Your task to perform on an android device: turn on notifications settings in the gmail app Image 0: 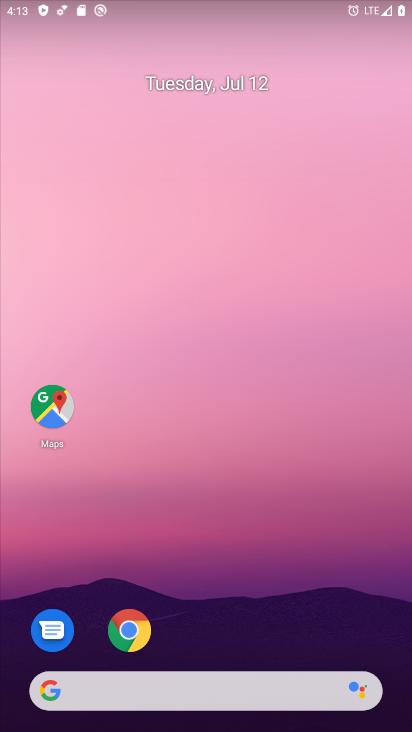
Step 0: click (160, 94)
Your task to perform on an android device: turn on notifications settings in the gmail app Image 1: 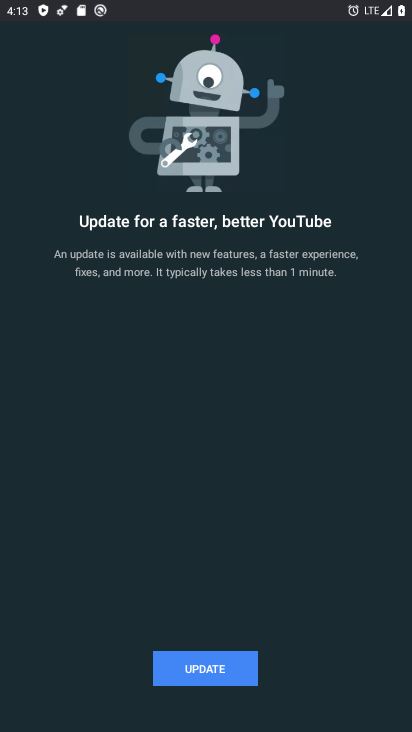
Step 1: drag from (213, 682) to (146, 295)
Your task to perform on an android device: turn on notifications settings in the gmail app Image 2: 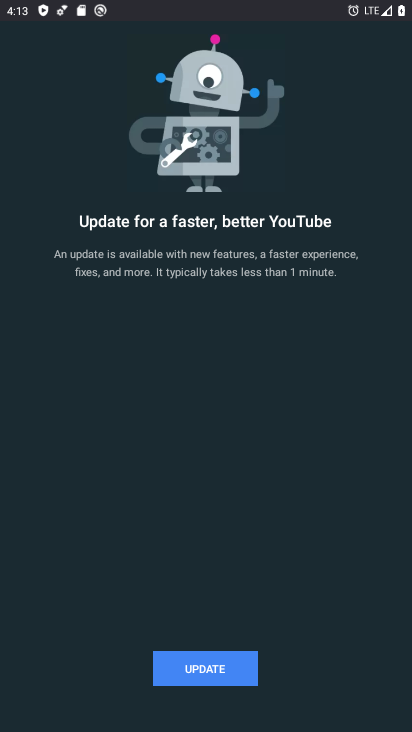
Step 2: press back button
Your task to perform on an android device: turn on notifications settings in the gmail app Image 3: 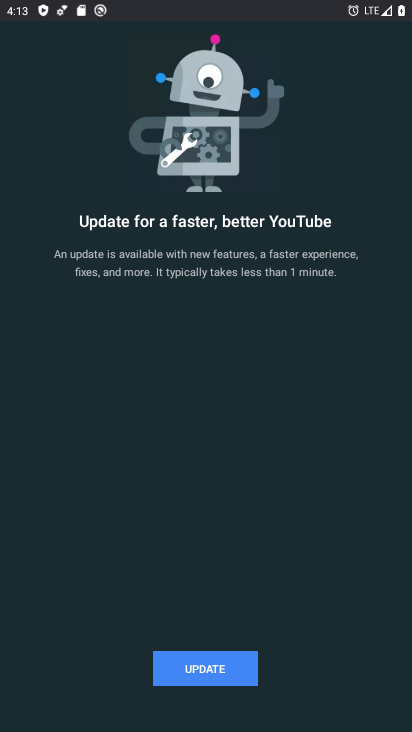
Step 3: press back button
Your task to perform on an android device: turn on notifications settings in the gmail app Image 4: 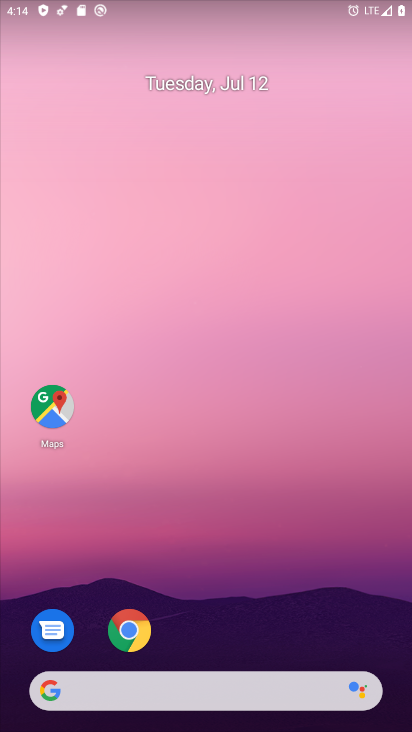
Step 4: drag from (255, 704) to (210, 30)
Your task to perform on an android device: turn on notifications settings in the gmail app Image 5: 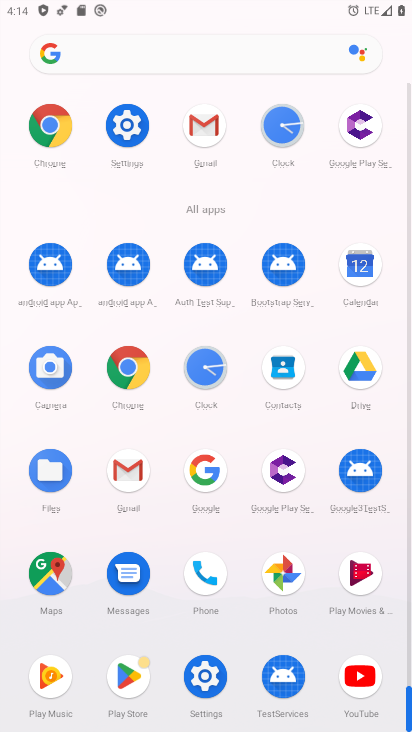
Step 5: click (135, 466)
Your task to perform on an android device: turn on notifications settings in the gmail app Image 6: 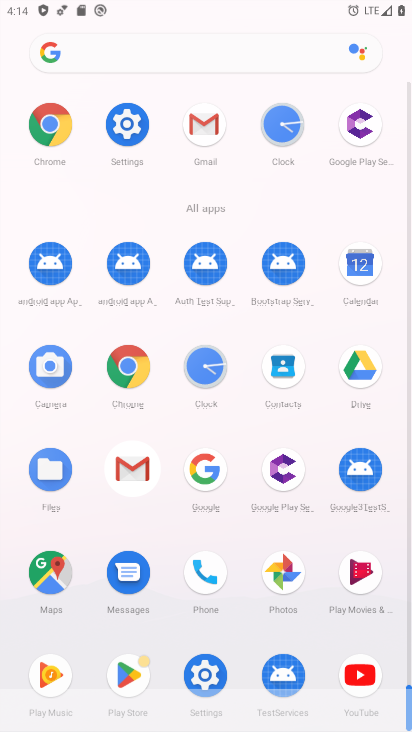
Step 6: click (133, 468)
Your task to perform on an android device: turn on notifications settings in the gmail app Image 7: 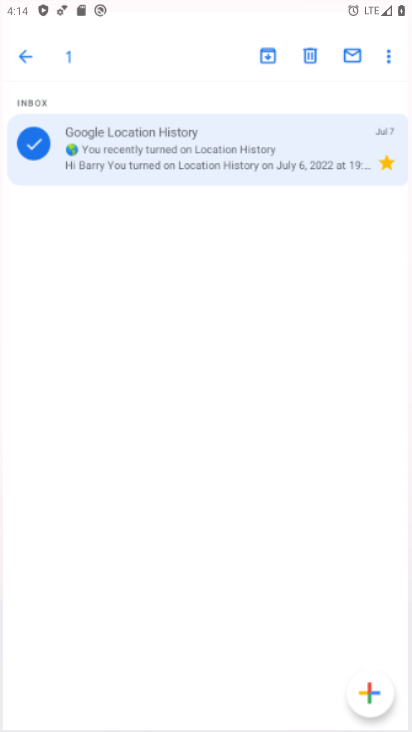
Step 7: click (133, 468)
Your task to perform on an android device: turn on notifications settings in the gmail app Image 8: 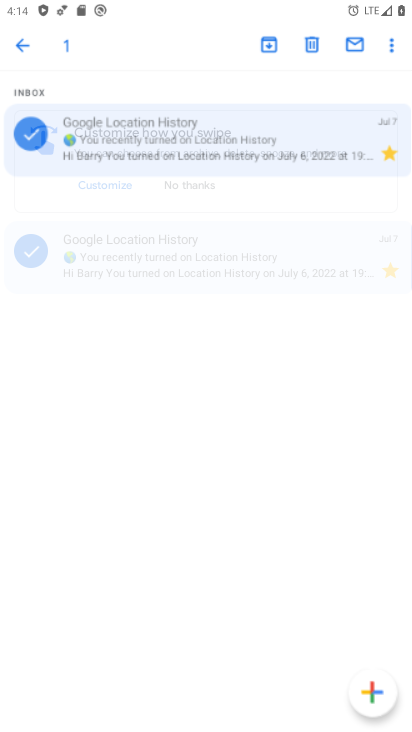
Step 8: click (132, 468)
Your task to perform on an android device: turn on notifications settings in the gmail app Image 9: 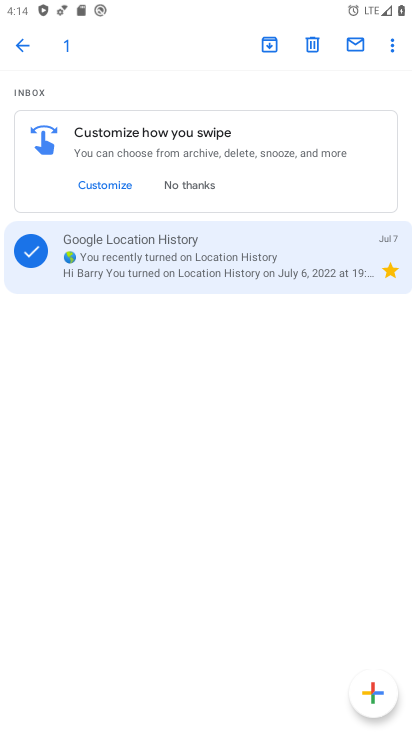
Step 9: click (20, 35)
Your task to perform on an android device: turn on notifications settings in the gmail app Image 10: 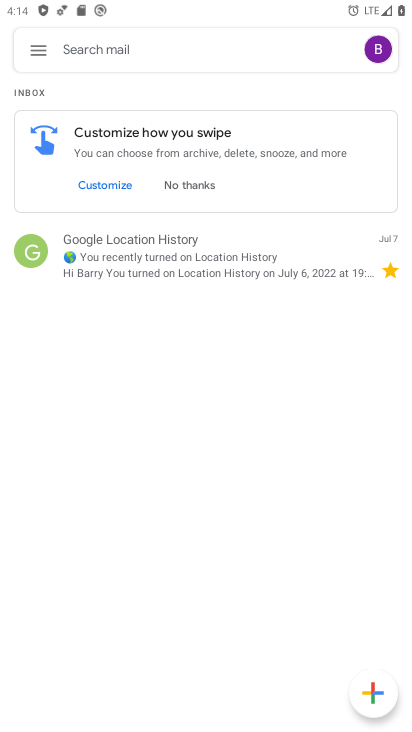
Step 10: click (32, 47)
Your task to perform on an android device: turn on notifications settings in the gmail app Image 11: 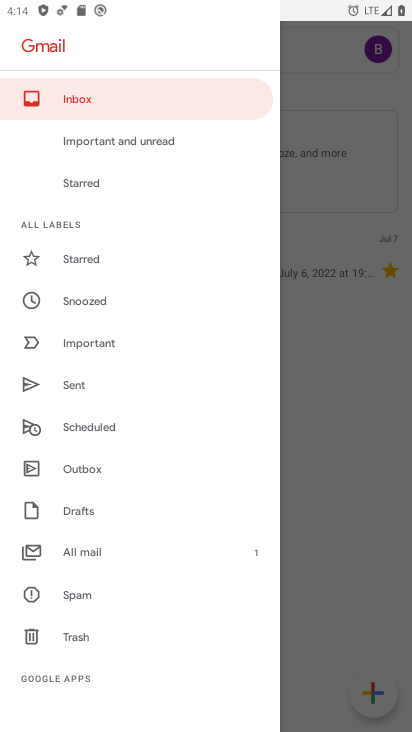
Step 11: drag from (92, 565) to (46, 156)
Your task to perform on an android device: turn on notifications settings in the gmail app Image 12: 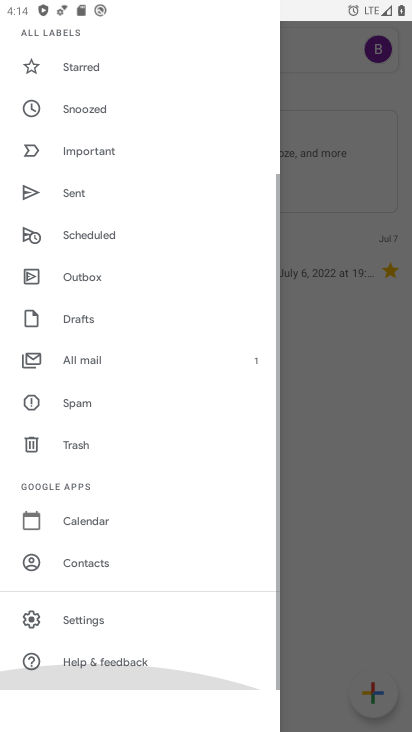
Step 12: drag from (114, 434) to (134, 261)
Your task to perform on an android device: turn on notifications settings in the gmail app Image 13: 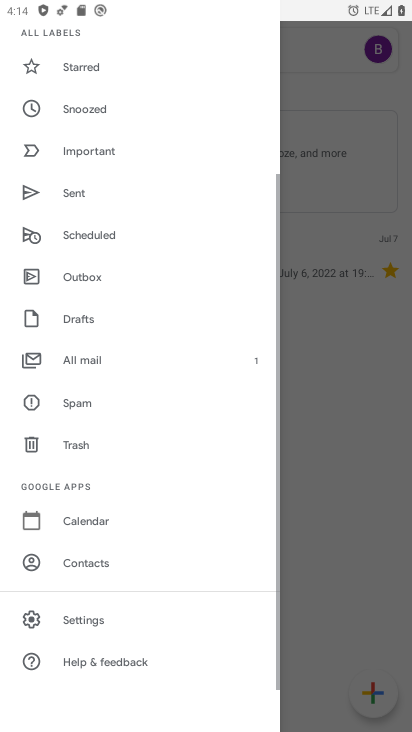
Step 13: click (81, 619)
Your task to perform on an android device: turn on notifications settings in the gmail app Image 14: 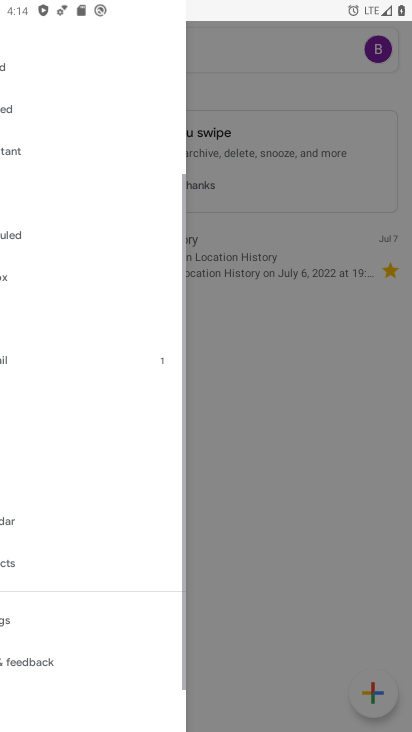
Step 14: click (81, 619)
Your task to perform on an android device: turn on notifications settings in the gmail app Image 15: 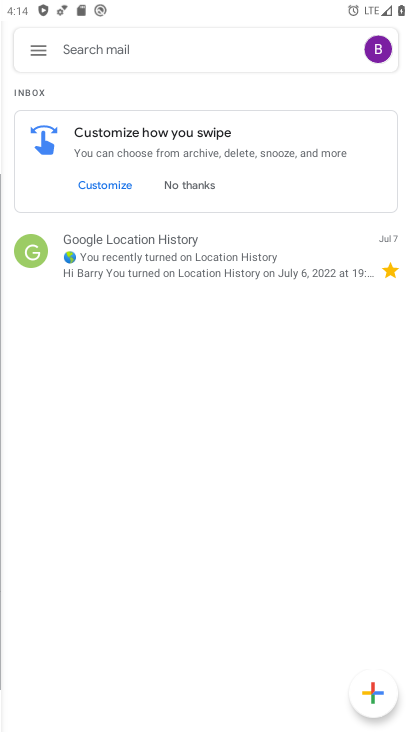
Step 15: click (86, 619)
Your task to perform on an android device: turn on notifications settings in the gmail app Image 16: 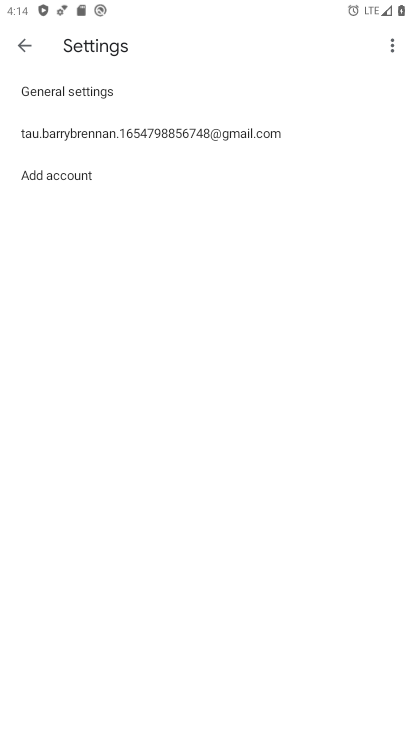
Step 16: click (92, 135)
Your task to perform on an android device: turn on notifications settings in the gmail app Image 17: 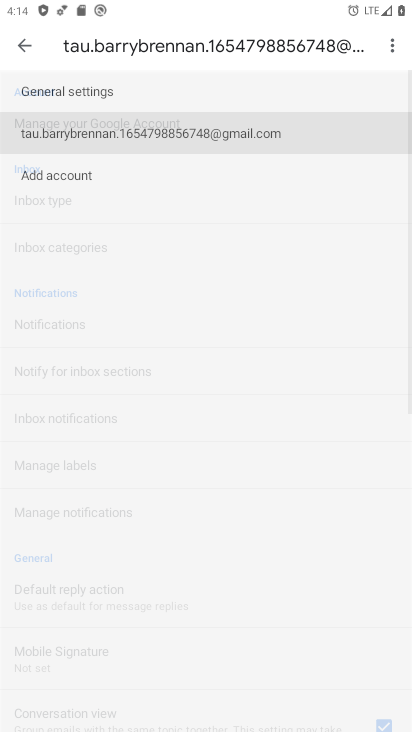
Step 17: click (106, 141)
Your task to perform on an android device: turn on notifications settings in the gmail app Image 18: 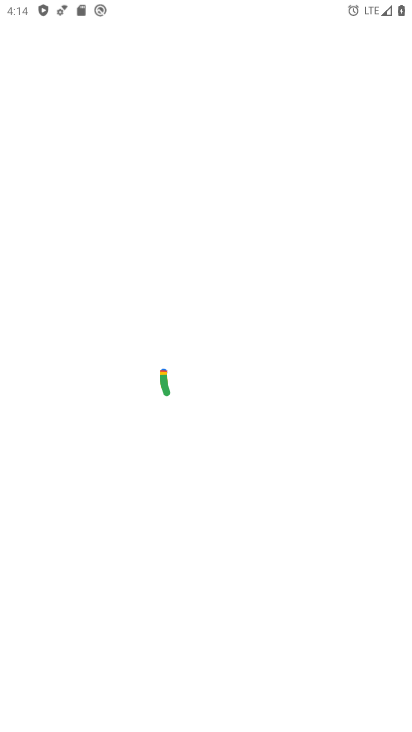
Step 18: press back button
Your task to perform on an android device: turn on notifications settings in the gmail app Image 19: 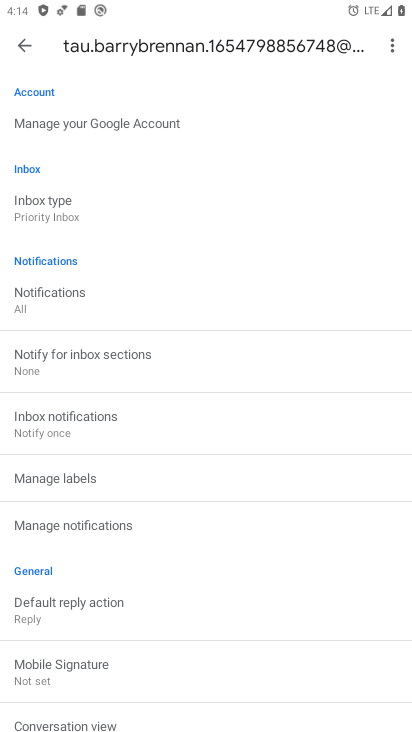
Step 19: click (42, 296)
Your task to perform on an android device: turn on notifications settings in the gmail app Image 20: 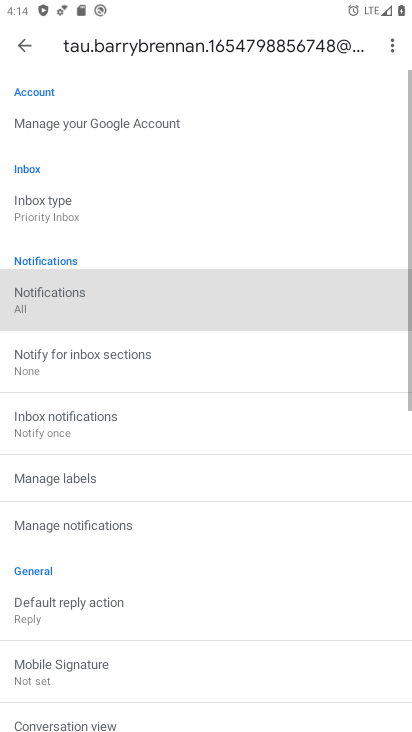
Step 20: click (43, 297)
Your task to perform on an android device: turn on notifications settings in the gmail app Image 21: 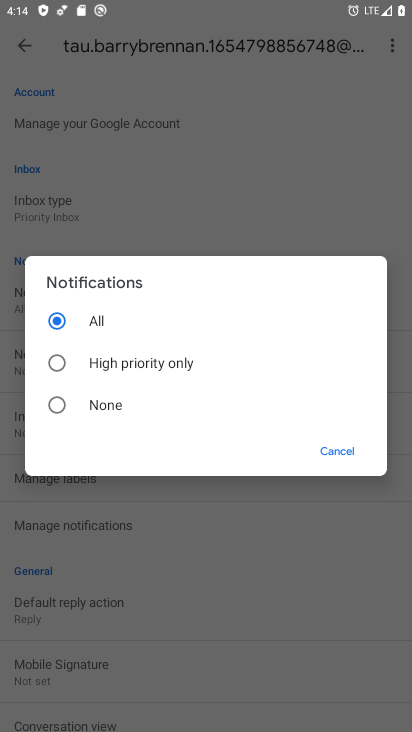
Step 21: click (320, 450)
Your task to perform on an android device: turn on notifications settings in the gmail app Image 22: 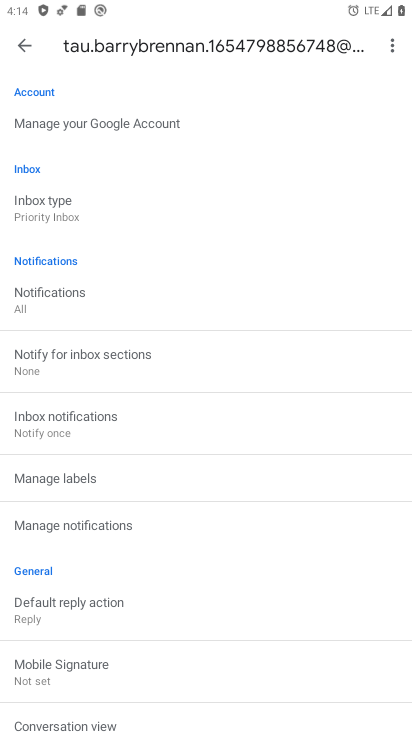
Step 22: task complete